Your task to perform on an android device: all mails in gmail Image 0: 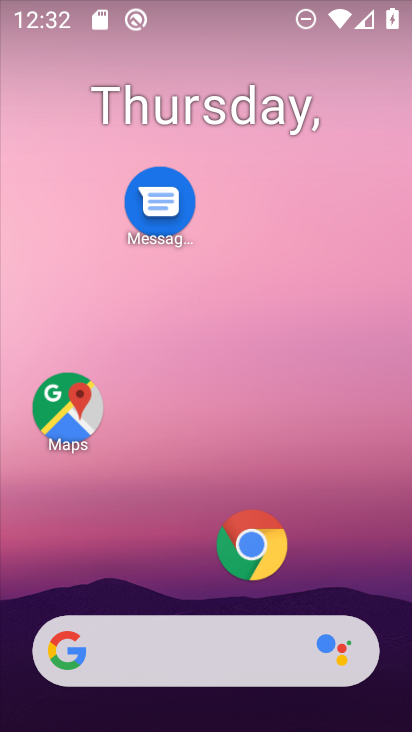
Step 0: drag from (203, 525) to (236, 207)
Your task to perform on an android device: all mails in gmail Image 1: 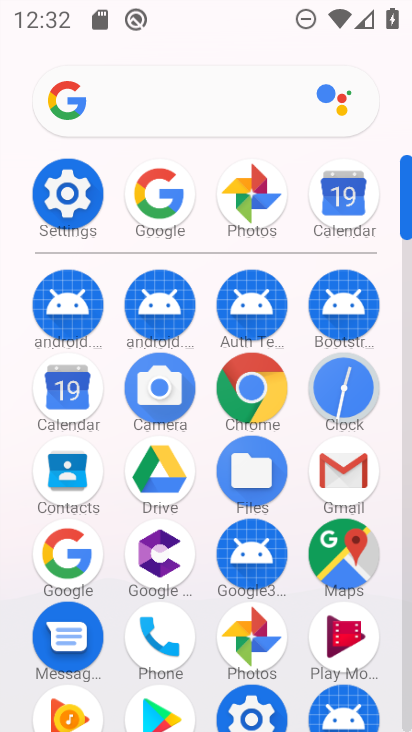
Step 1: drag from (191, 547) to (196, 437)
Your task to perform on an android device: all mails in gmail Image 2: 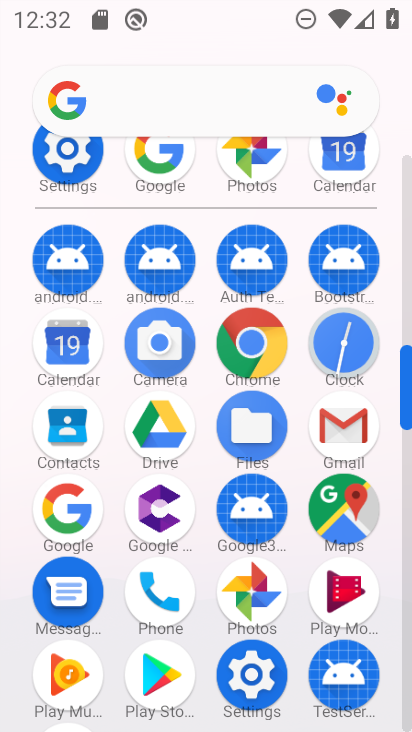
Step 2: click (315, 441)
Your task to perform on an android device: all mails in gmail Image 3: 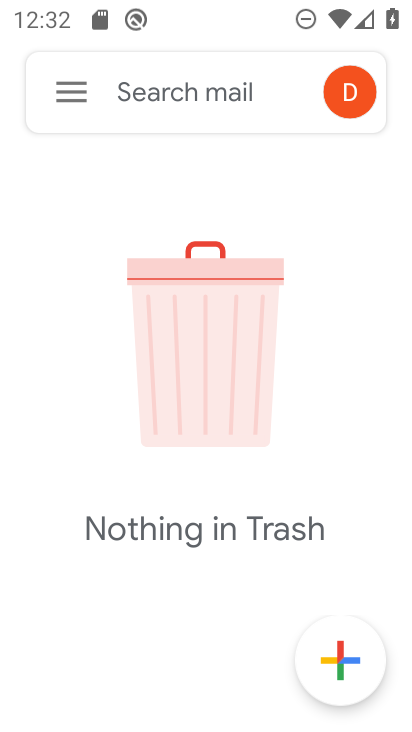
Step 3: click (79, 95)
Your task to perform on an android device: all mails in gmail Image 4: 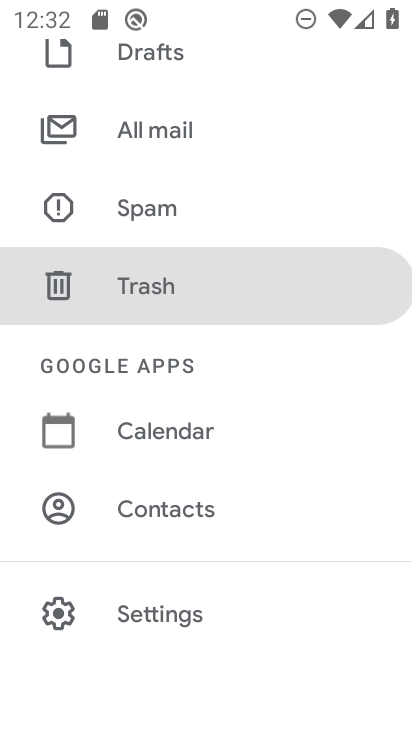
Step 4: click (160, 125)
Your task to perform on an android device: all mails in gmail Image 5: 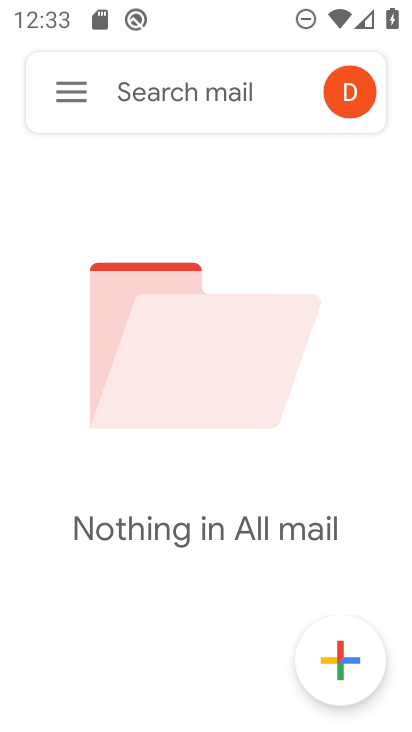
Step 5: task complete